Your task to perform on an android device: Open Yahoo.com Image 0: 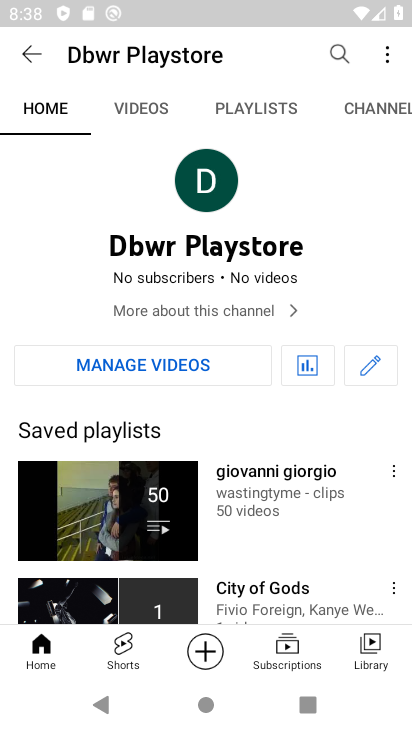
Step 0: press home button
Your task to perform on an android device: Open Yahoo.com Image 1: 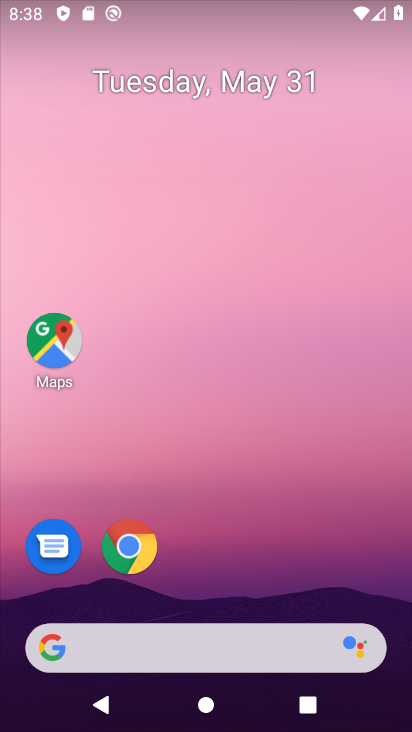
Step 1: drag from (403, 697) to (347, 124)
Your task to perform on an android device: Open Yahoo.com Image 2: 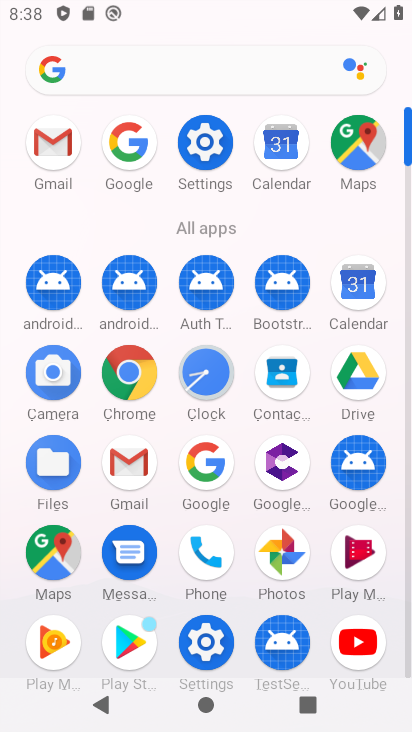
Step 2: click (129, 378)
Your task to perform on an android device: Open Yahoo.com Image 3: 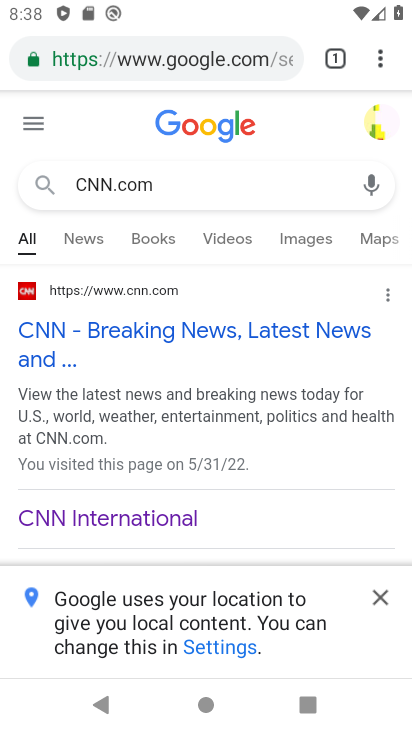
Step 3: click (287, 62)
Your task to perform on an android device: Open Yahoo.com Image 4: 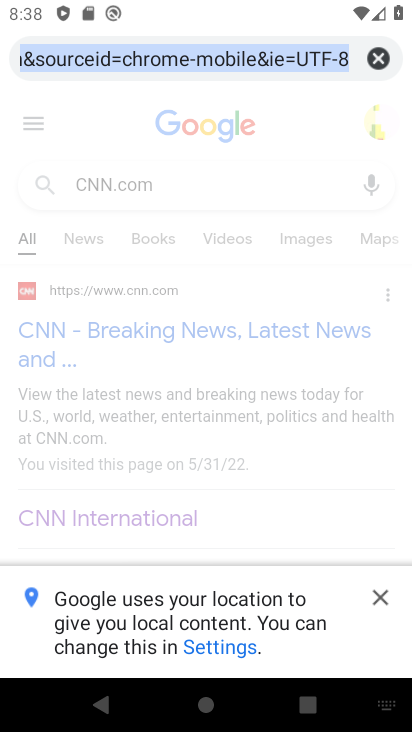
Step 4: click (372, 57)
Your task to perform on an android device: Open Yahoo.com Image 5: 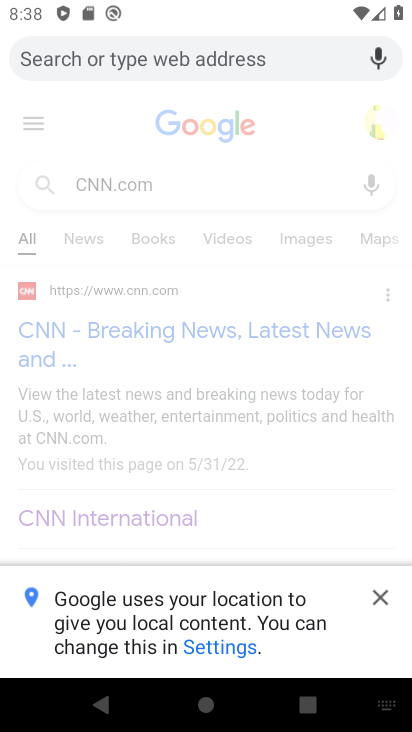
Step 5: type "Yahoo.com"
Your task to perform on an android device: Open Yahoo.com Image 6: 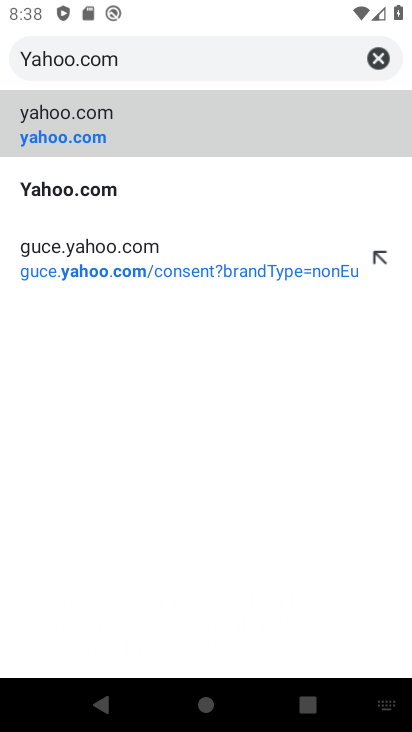
Step 6: click (107, 191)
Your task to perform on an android device: Open Yahoo.com Image 7: 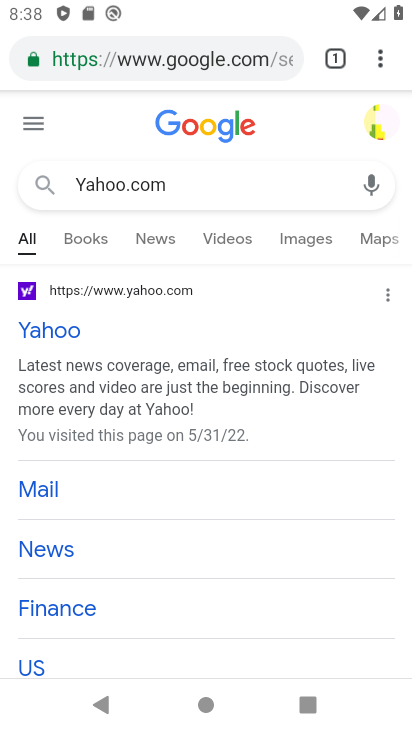
Step 7: task complete